Your task to perform on an android device: Open Youtube and go to "Your channel" Image 0: 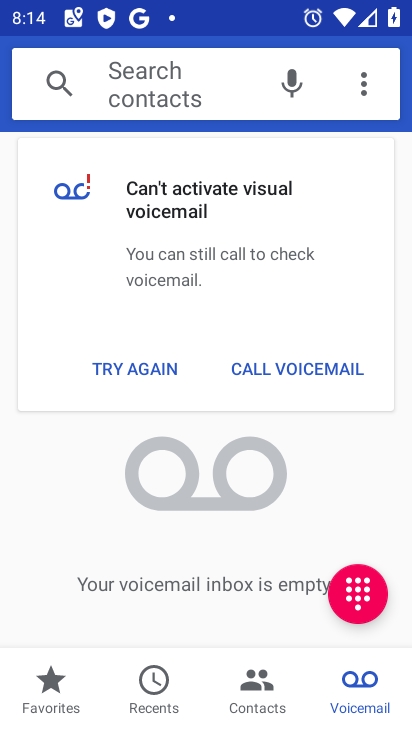
Step 0: press home button
Your task to perform on an android device: Open Youtube and go to "Your channel" Image 1: 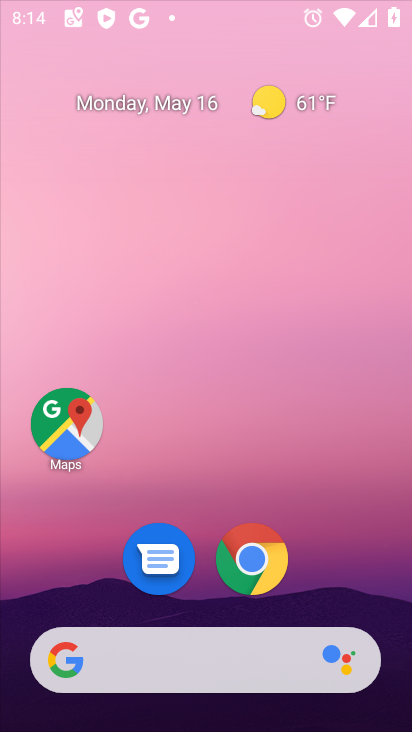
Step 1: drag from (368, 570) to (382, 92)
Your task to perform on an android device: Open Youtube and go to "Your channel" Image 2: 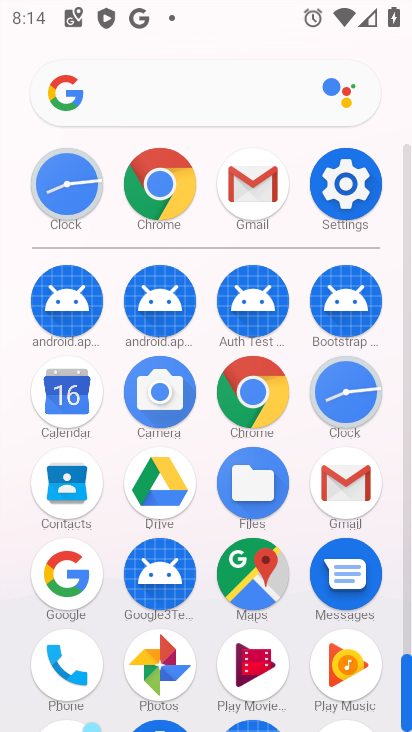
Step 2: drag from (275, 549) to (309, 154)
Your task to perform on an android device: Open Youtube and go to "Your channel" Image 3: 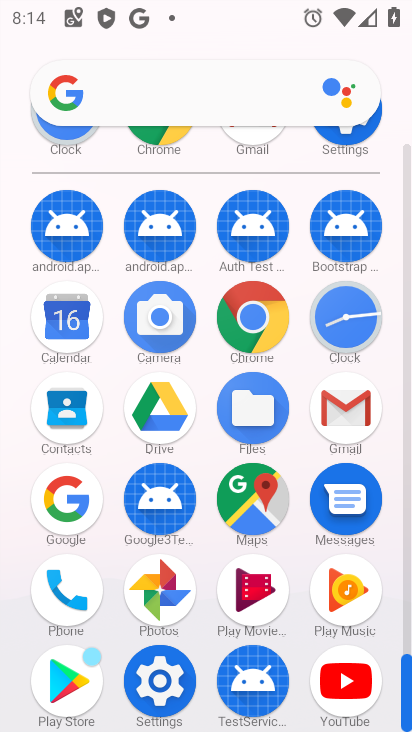
Step 3: click (322, 686)
Your task to perform on an android device: Open Youtube and go to "Your channel" Image 4: 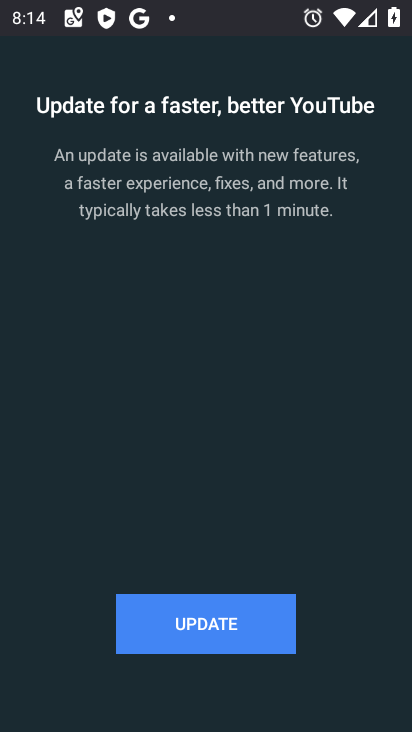
Step 4: click (189, 591)
Your task to perform on an android device: Open Youtube and go to "Your channel" Image 5: 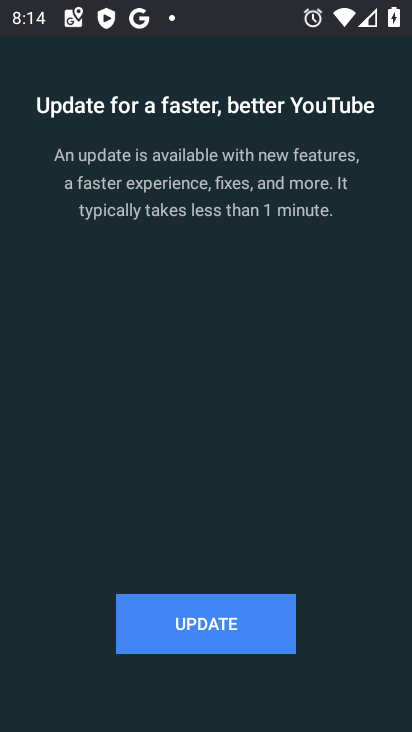
Step 5: click (162, 597)
Your task to perform on an android device: Open Youtube and go to "Your channel" Image 6: 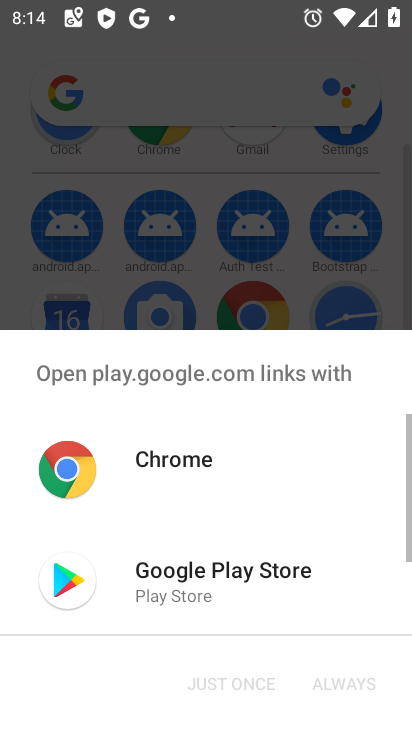
Step 6: click (162, 595)
Your task to perform on an android device: Open Youtube and go to "Your channel" Image 7: 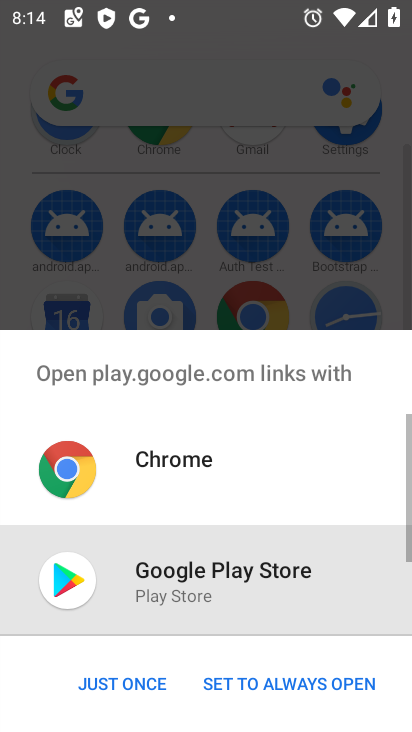
Step 7: click (116, 684)
Your task to perform on an android device: Open Youtube and go to "Your channel" Image 8: 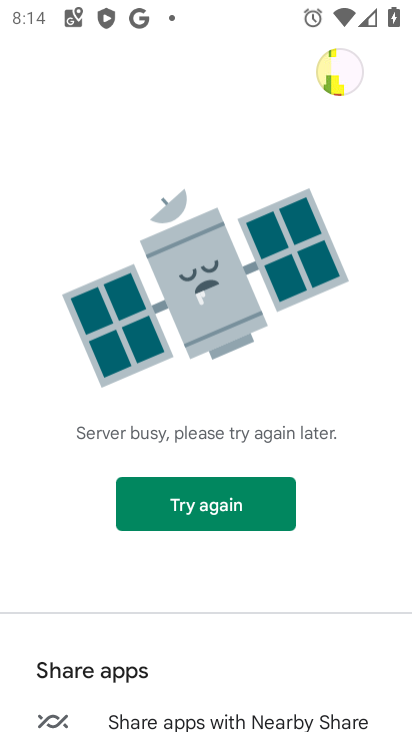
Step 8: task complete